Your task to perform on an android device: Turn off the flashlight Image 0: 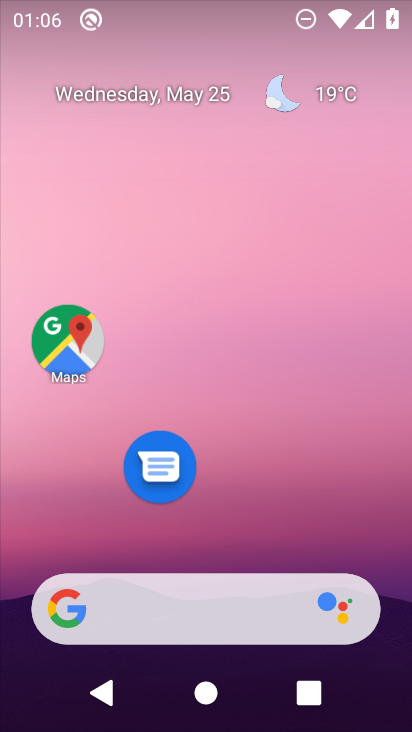
Step 0: drag from (196, 535) to (204, 188)
Your task to perform on an android device: Turn off the flashlight Image 1: 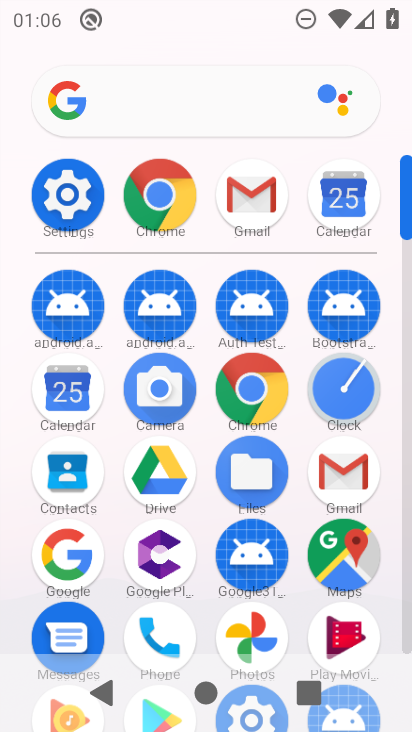
Step 1: click (69, 211)
Your task to perform on an android device: Turn off the flashlight Image 2: 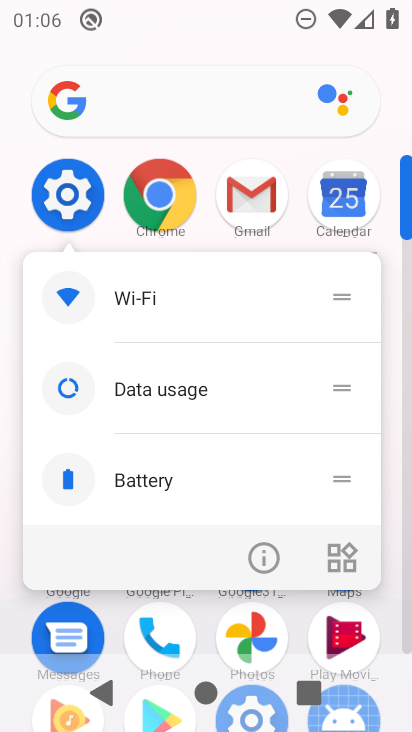
Step 2: click (252, 563)
Your task to perform on an android device: Turn off the flashlight Image 3: 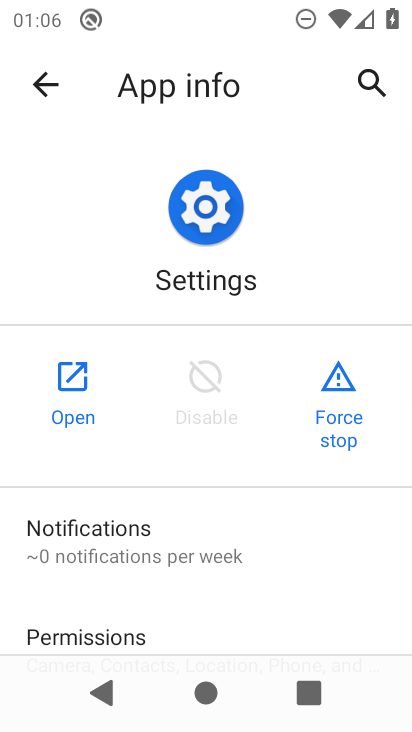
Step 3: click (83, 383)
Your task to perform on an android device: Turn off the flashlight Image 4: 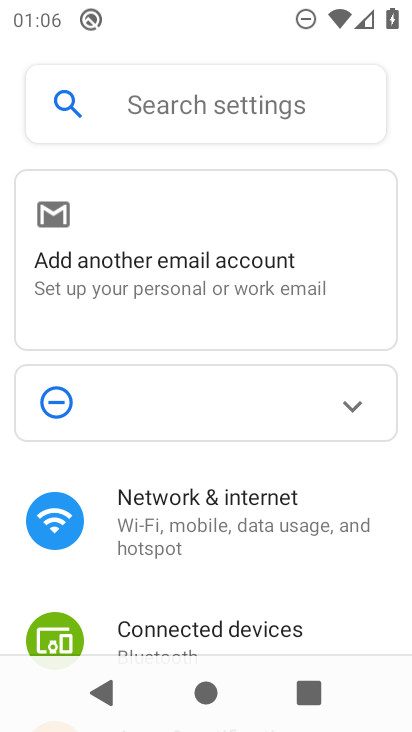
Step 4: click (173, 103)
Your task to perform on an android device: Turn off the flashlight Image 5: 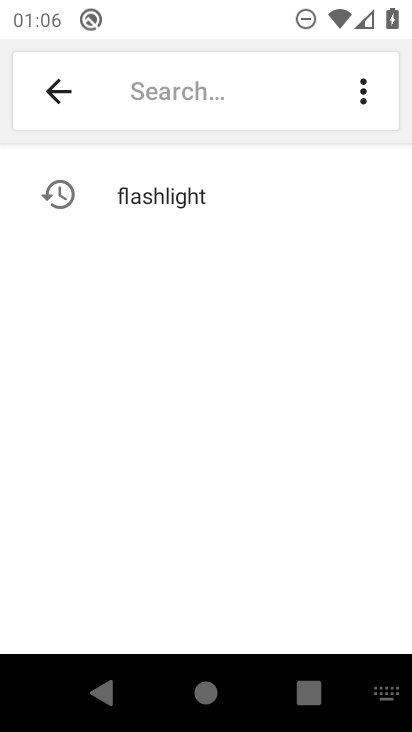
Step 5: click (171, 184)
Your task to perform on an android device: Turn off the flashlight Image 6: 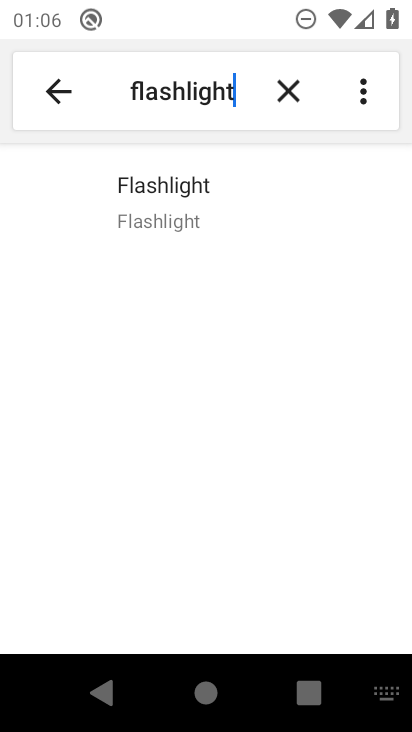
Step 6: click (203, 205)
Your task to perform on an android device: Turn off the flashlight Image 7: 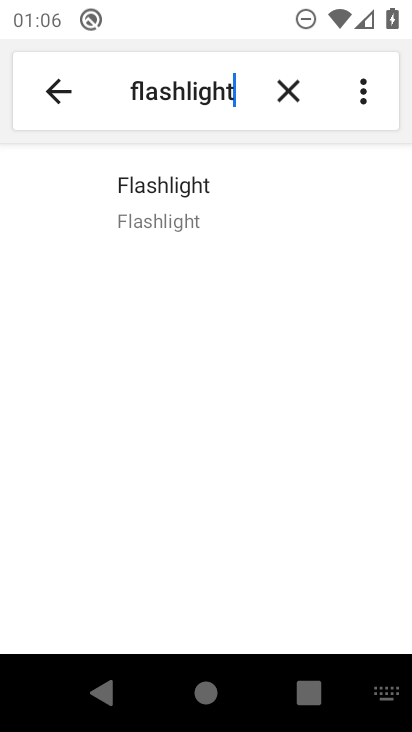
Step 7: task complete